Your task to perform on an android device: What's the weather today? Image 0: 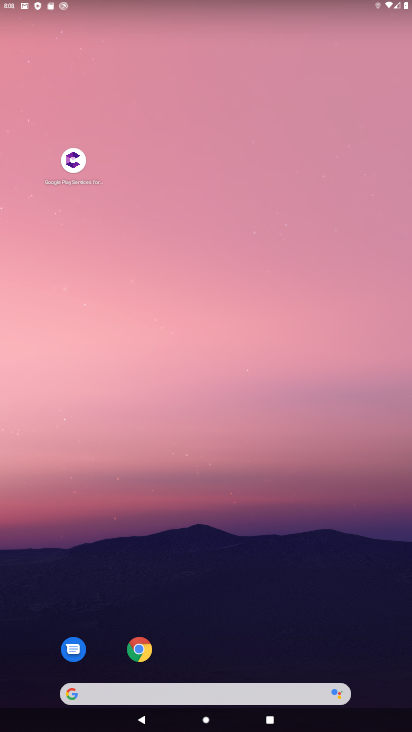
Step 0: drag from (194, 654) to (199, 294)
Your task to perform on an android device: What's the weather today? Image 1: 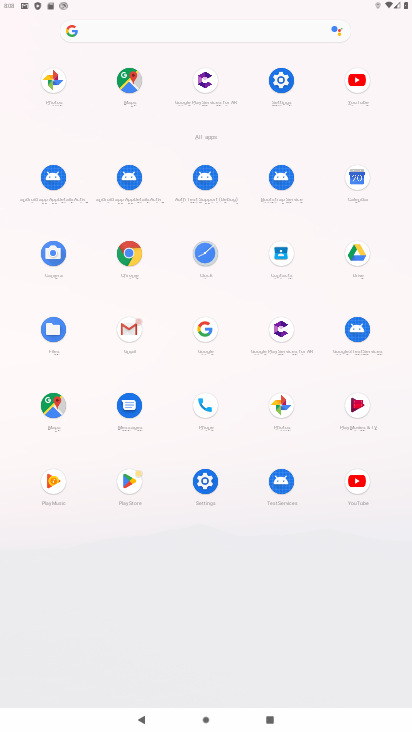
Step 1: click (196, 333)
Your task to perform on an android device: What's the weather today? Image 2: 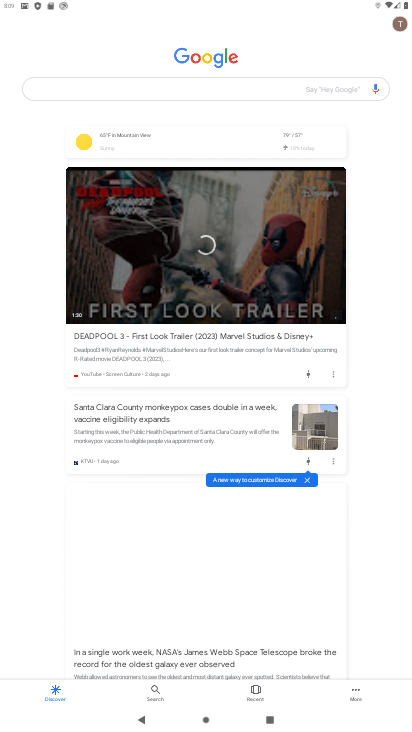
Step 2: click (76, 82)
Your task to perform on an android device: What's the weather today? Image 3: 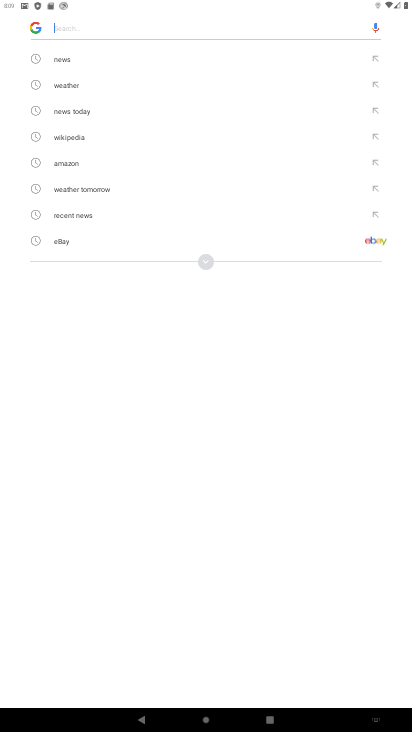
Step 3: click (66, 88)
Your task to perform on an android device: What's the weather today? Image 4: 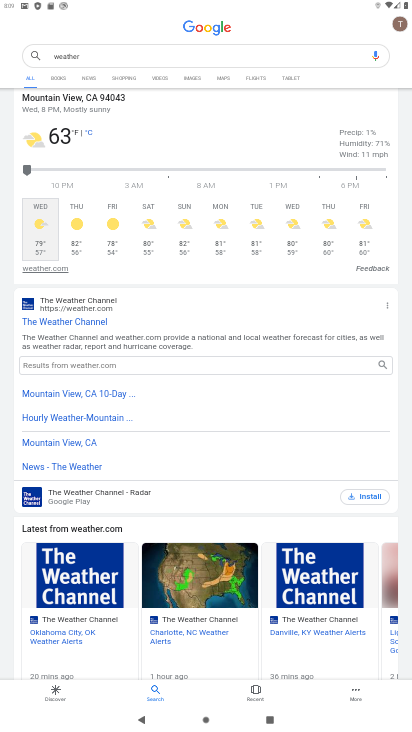
Step 4: task complete